Your task to perform on an android device: Toggle the flashlight Image 0: 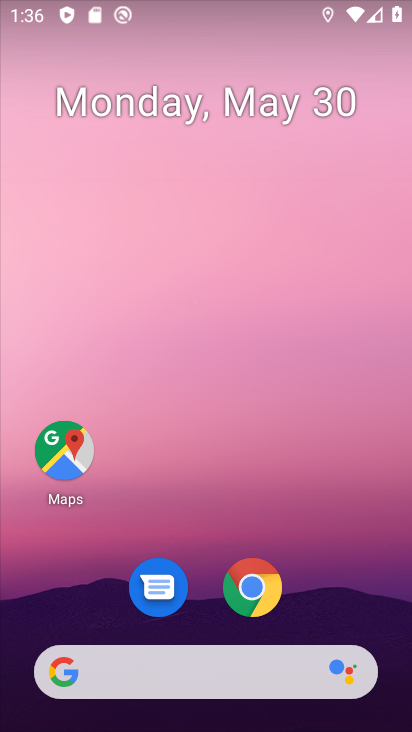
Step 0: drag from (187, 10) to (278, 604)
Your task to perform on an android device: Toggle the flashlight Image 1: 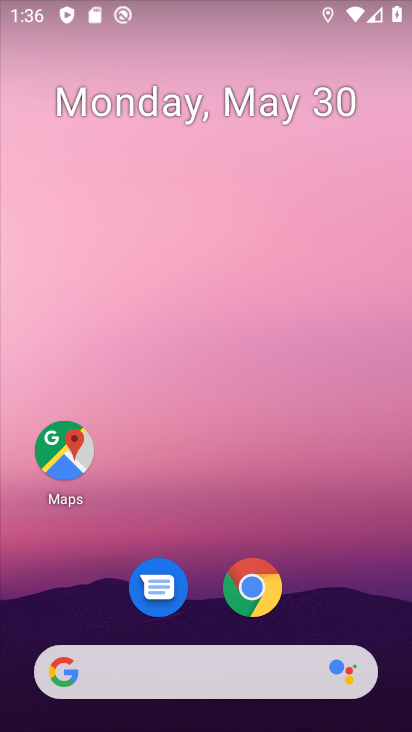
Step 1: drag from (174, 9) to (151, 632)
Your task to perform on an android device: Toggle the flashlight Image 2: 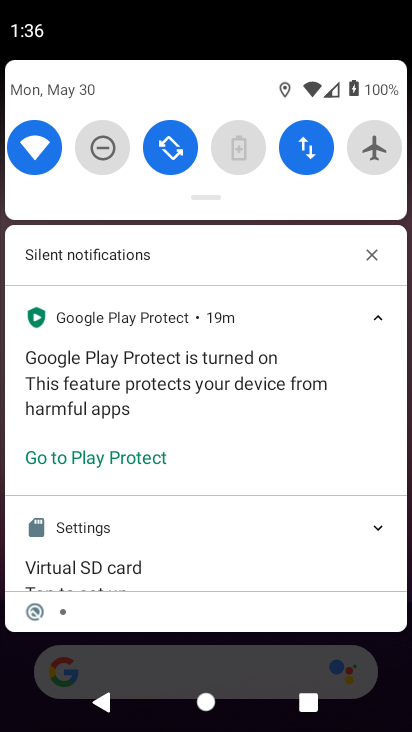
Step 2: drag from (204, 199) to (190, 565)
Your task to perform on an android device: Toggle the flashlight Image 3: 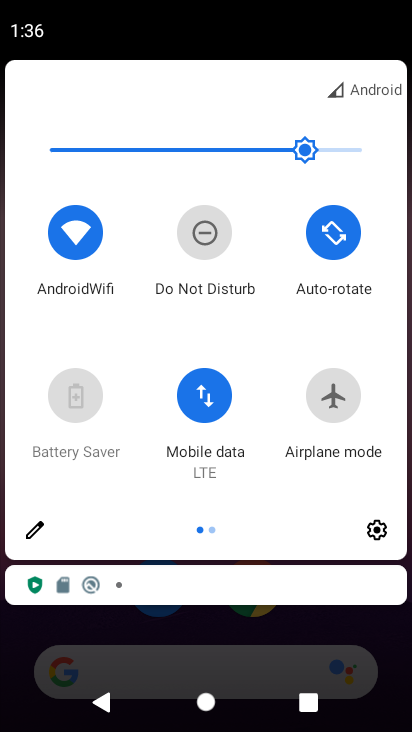
Step 3: click (42, 530)
Your task to perform on an android device: Toggle the flashlight Image 4: 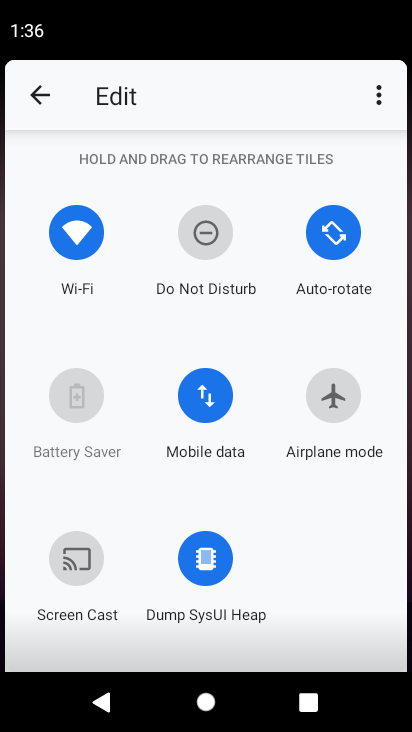
Step 4: task complete